Your task to perform on an android device: empty trash in the gmail app Image 0: 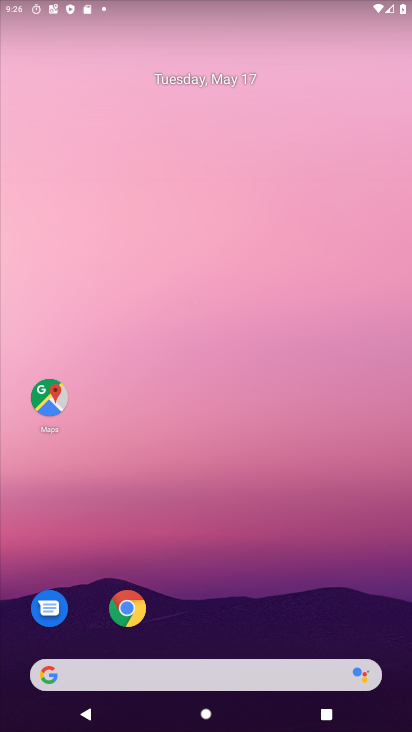
Step 0: drag from (264, 601) to (297, 170)
Your task to perform on an android device: empty trash in the gmail app Image 1: 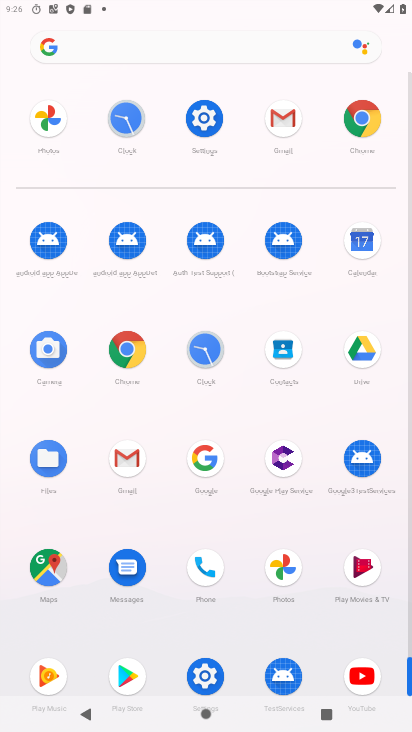
Step 1: click (130, 472)
Your task to perform on an android device: empty trash in the gmail app Image 2: 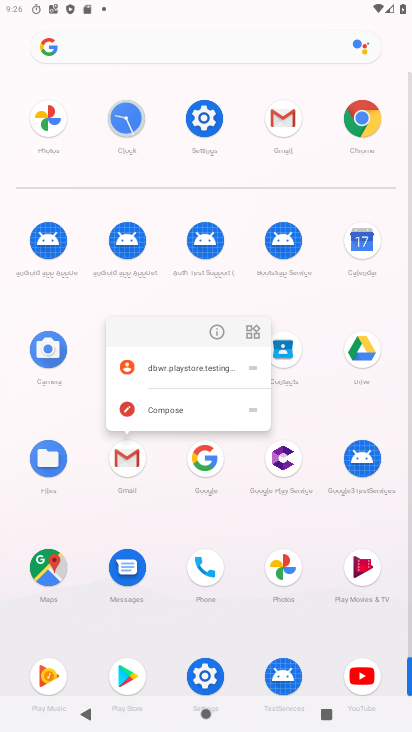
Step 2: click (131, 467)
Your task to perform on an android device: empty trash in the gmail app Image 3: 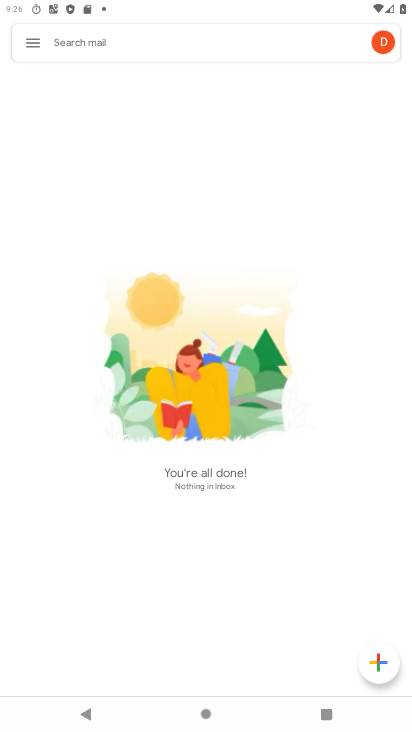
Step 3: click (30, 39)
Your task to perform on an android device: empty trash in the gmail app Image 4: 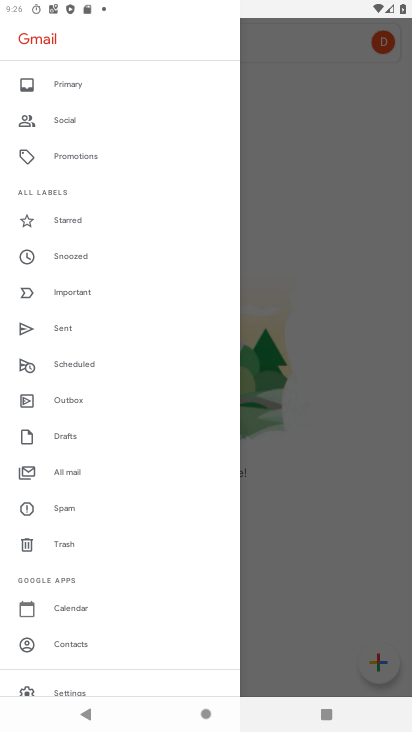
Step 4: click (102, 542)
Your task to perform on an android device: empty trash in the gmail app Image 5: 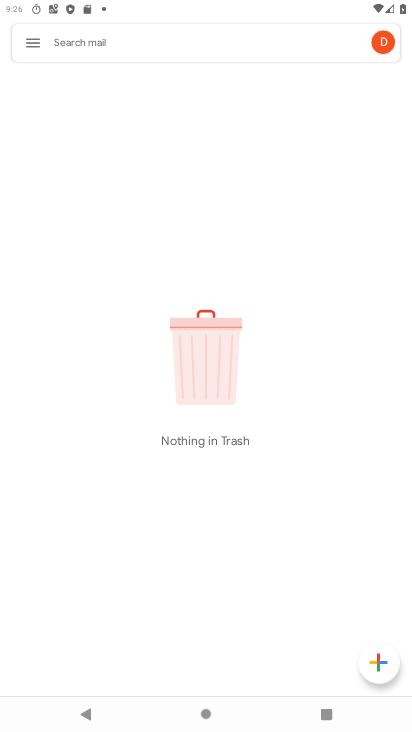
Step 5: task complete